Your task to perform on an android device: Open display settings Image 0: 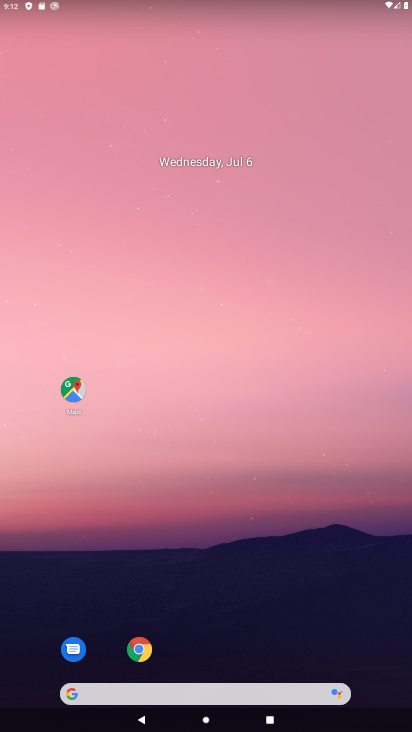
Step 0: drag from (205, 666) to (198, 141)
Your task to perform on an android device: Open display settings Image 1: 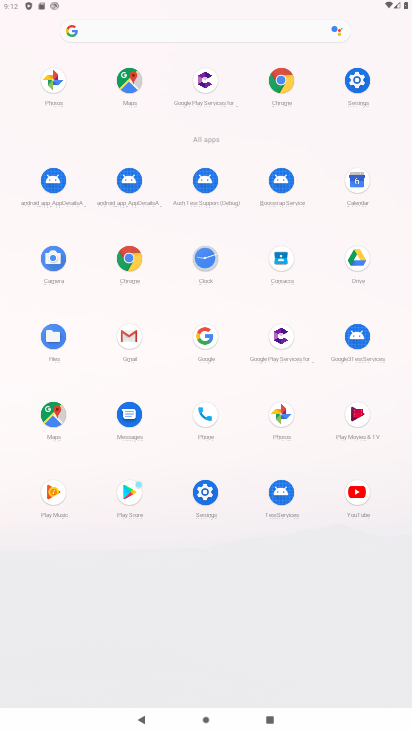
Step 1: click (355, 79)
Your task to perform on an android device: Open display settings Image 2: 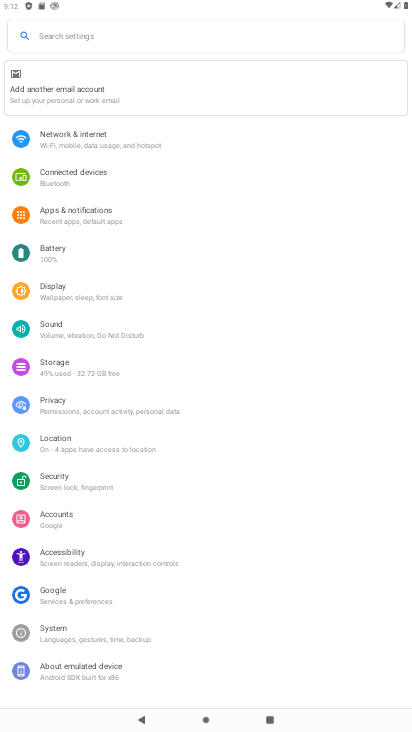
Step 2: click (71, 287)
Your task to perform on an android device: Open display settings Image 3: 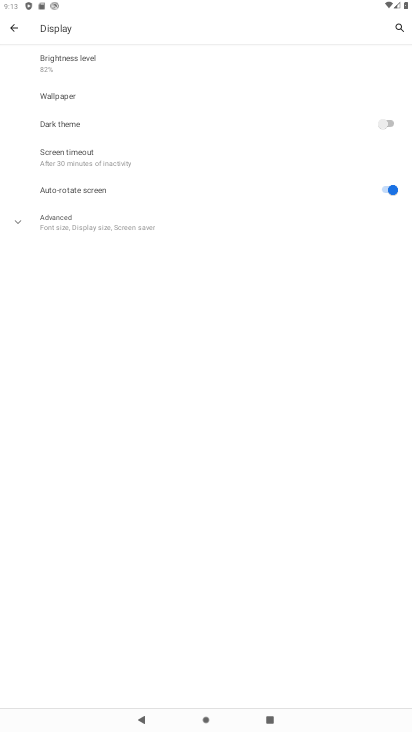
Step 3: click (19, 227)
Your task to perform on an android device: Open display settings Image 4: 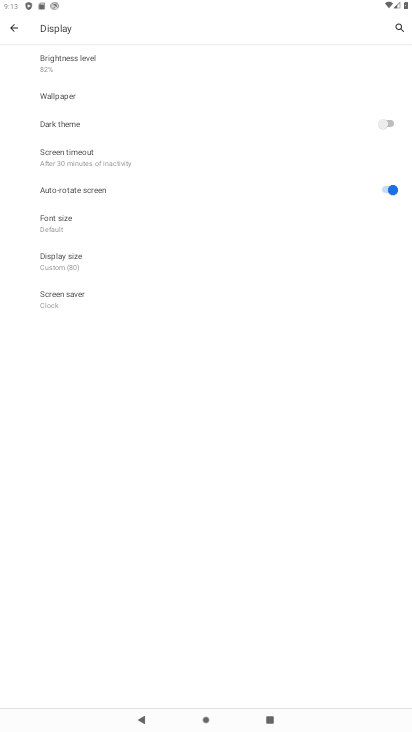
Step 4: task complete